Your task to perform on an android device: set an alarm Image 0: 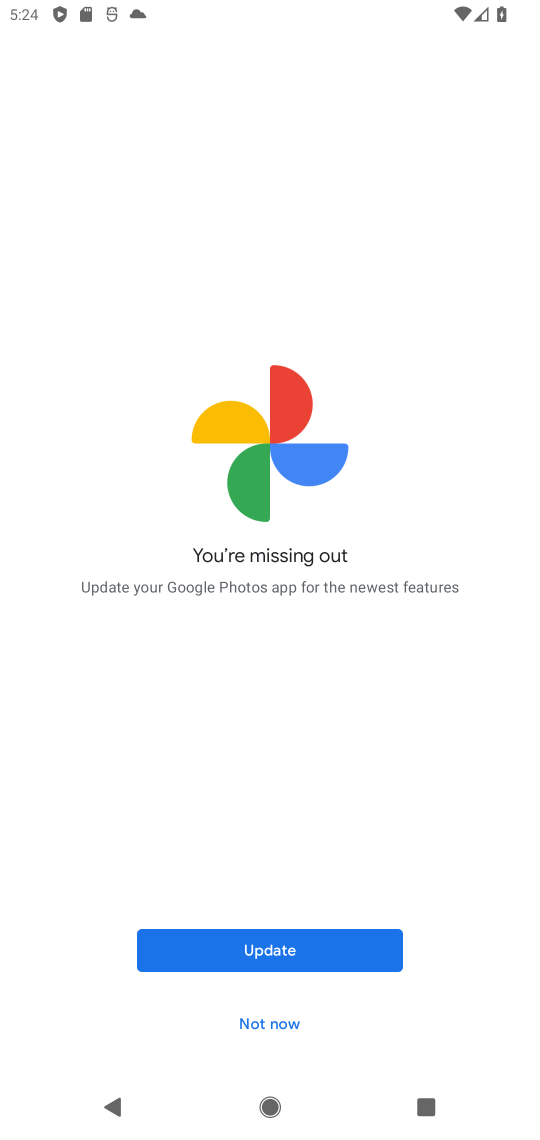
Step 0: press home button
Your task to perform on an android device: set an alarm Image 1: 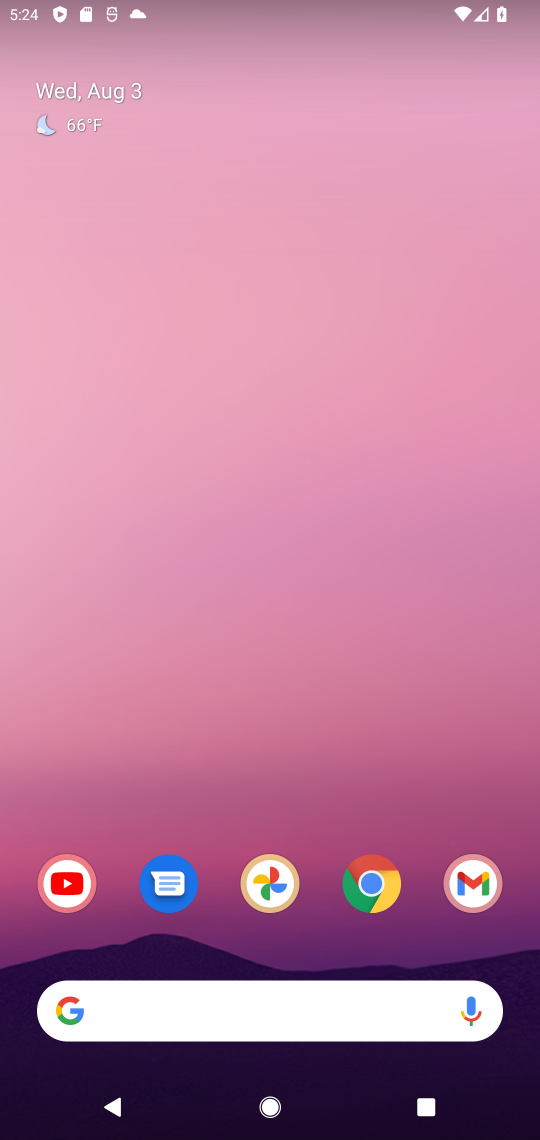
Step 1: drag from (270, 973) to (303, 247)
Your task to perform on an android device: set an alarm Image 2: 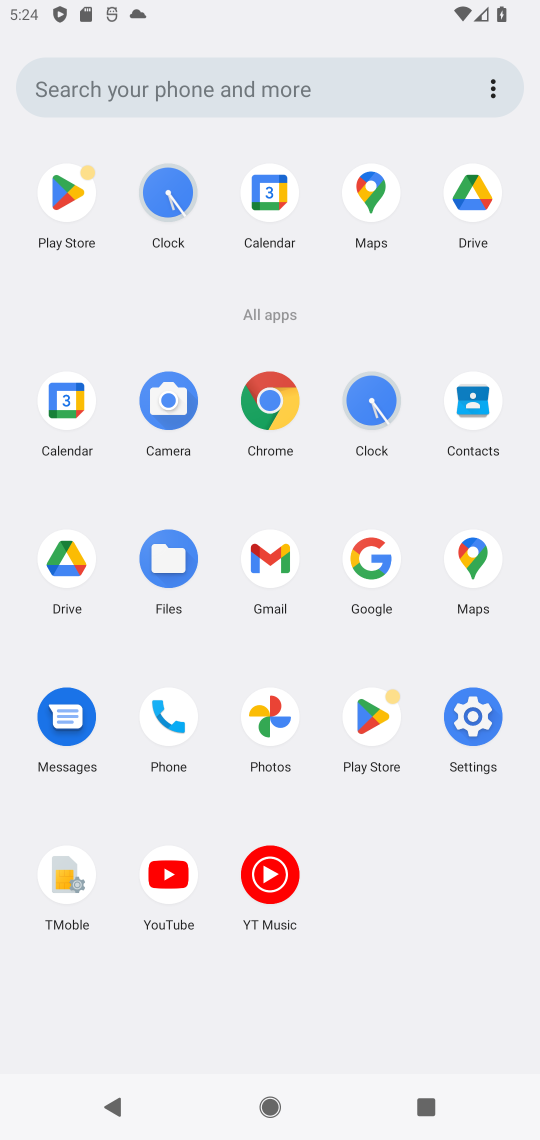
Step 2: click (154, 190)
Your task to perform on an android device: set an alarm Image 3: 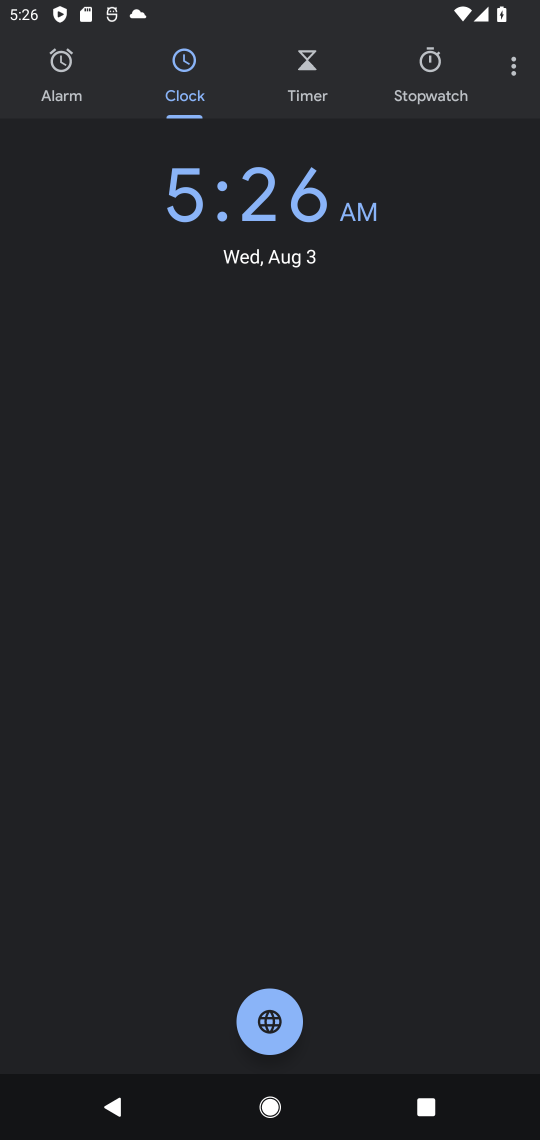
Step 3: click (71, 76)
Your task to perform on an android device: set an alarm Image 4: 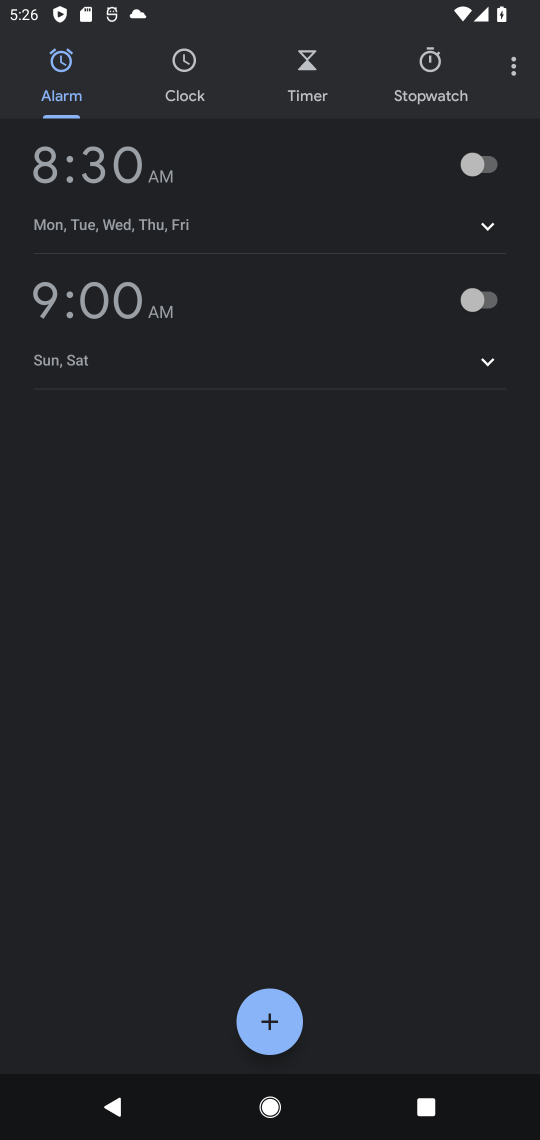
Step 4: click (248, 1030)
Your task to perform on an android device: set an alarm Image 5: 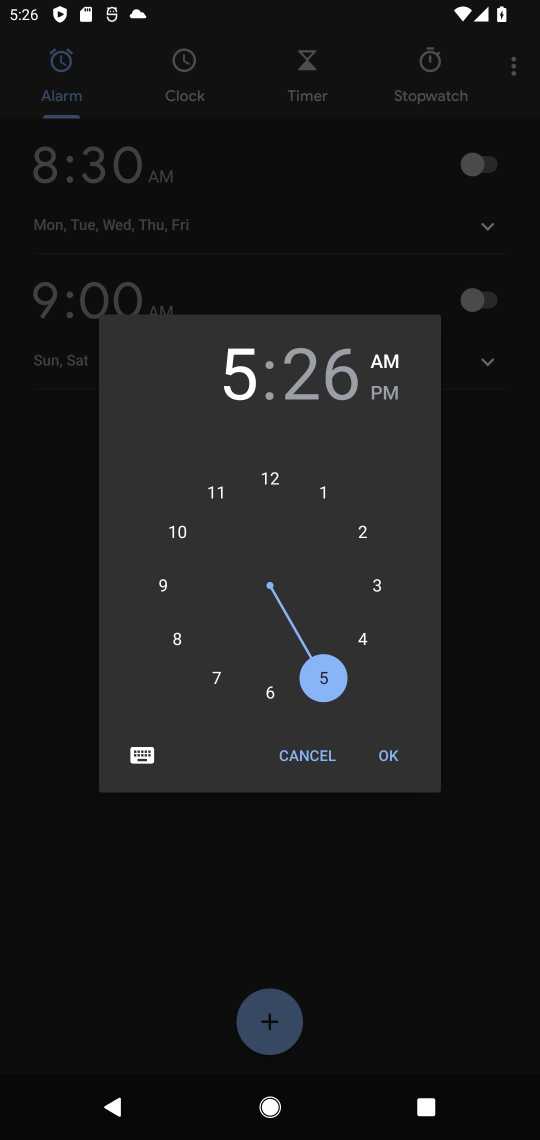
Step 5: click (268, 695)
Your task to perform on an android device: set an alarm Image 6: 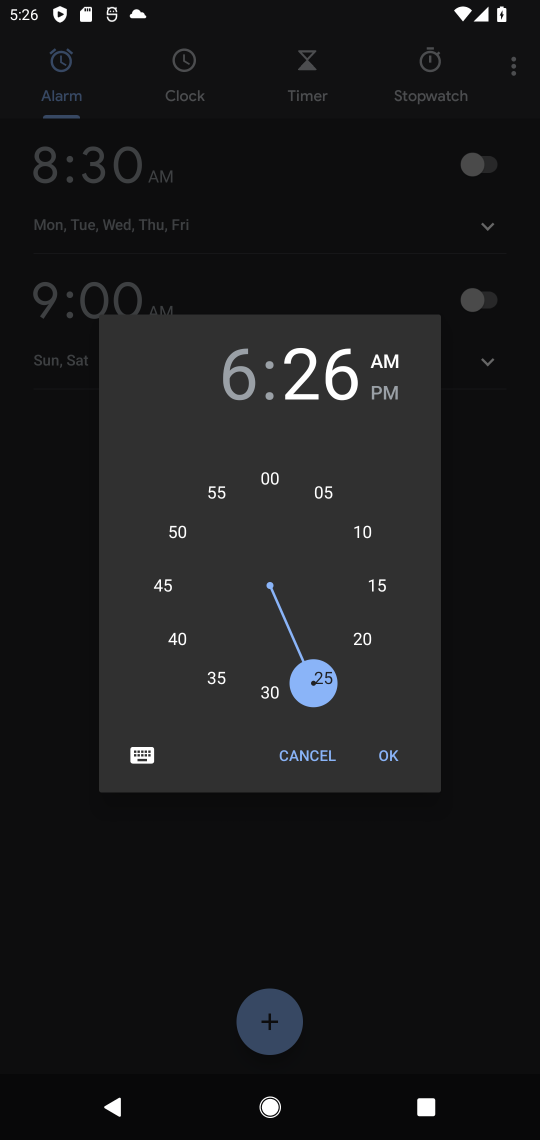
Step 6: click (274, 482)
Your task to perform on an android device: set an alarm Image 7: 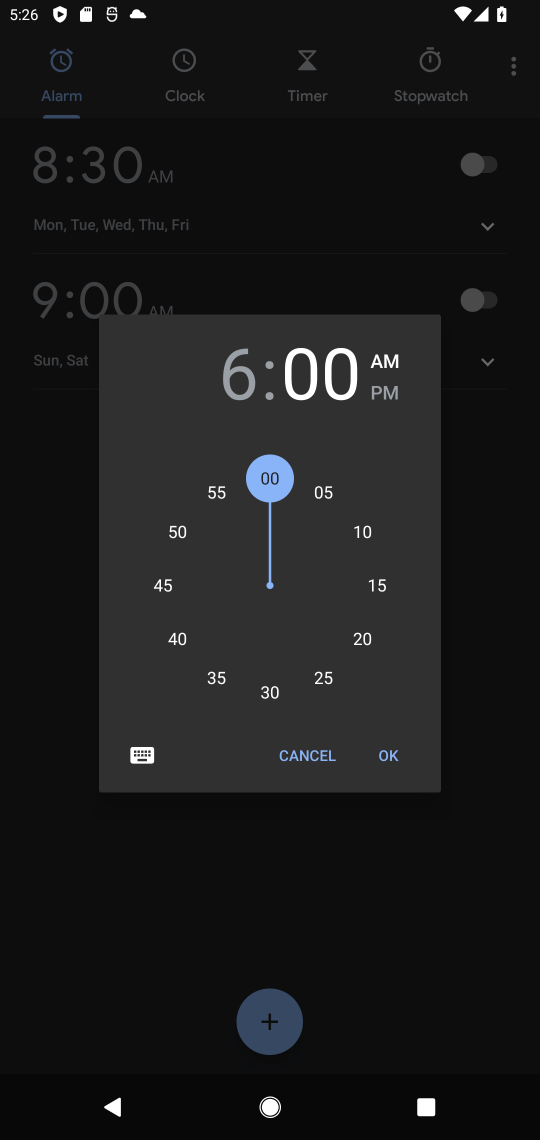
Step 7: click (397, 767)
Your task to perform on an android device: set an alarm Image 8: 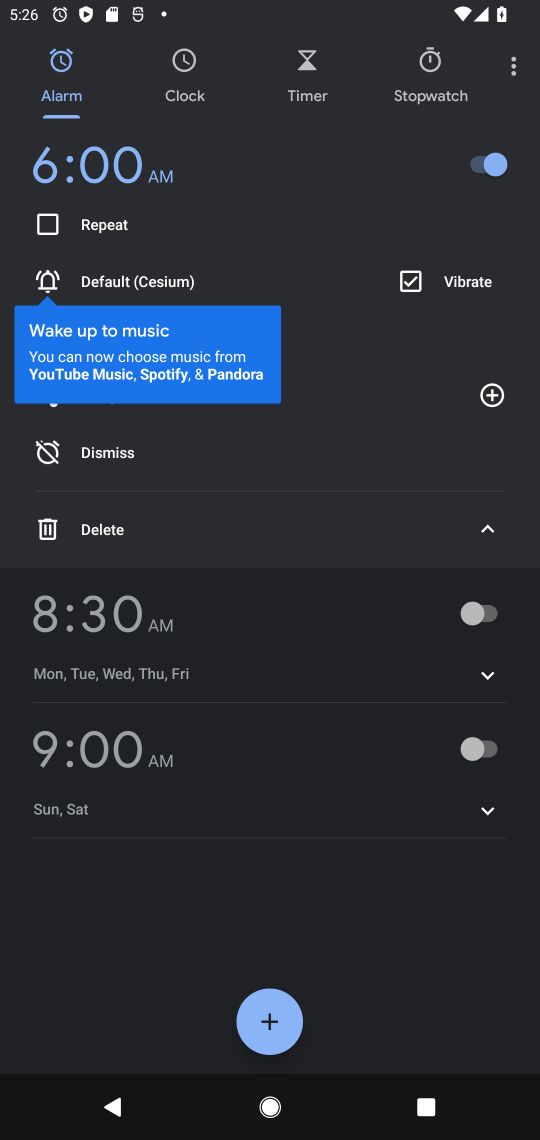
Step 8: task complete